Your task to perform on an android device: Go to settings Image 0: 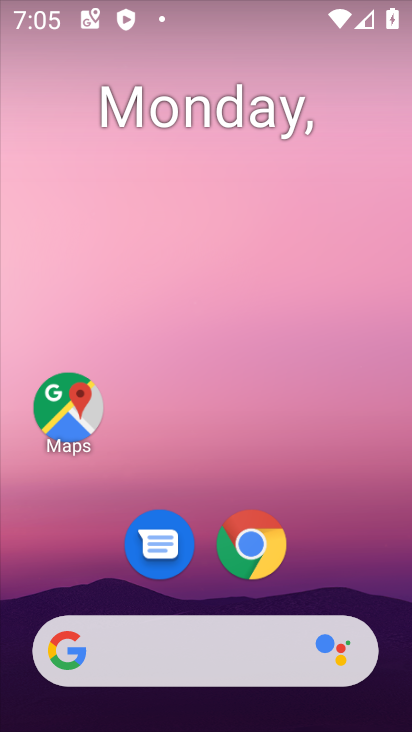
Step 0: drag from (337, 526) to (283, 57)
Your task to perform on an android device: Go to settings Image 1: 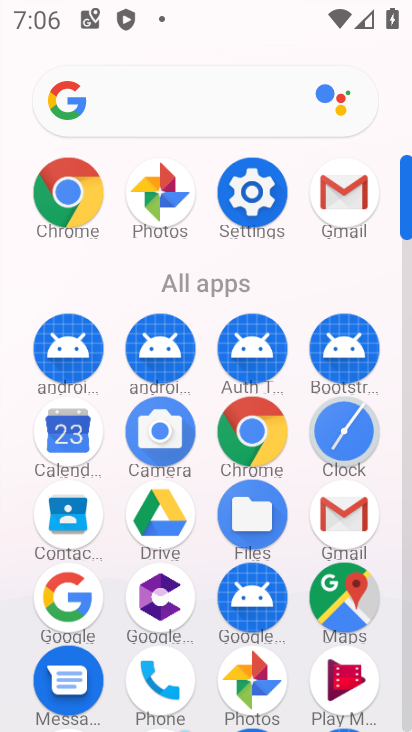
Step 1: click (253, 188)
Your task to perform on an android device: Go to settings Image 2: 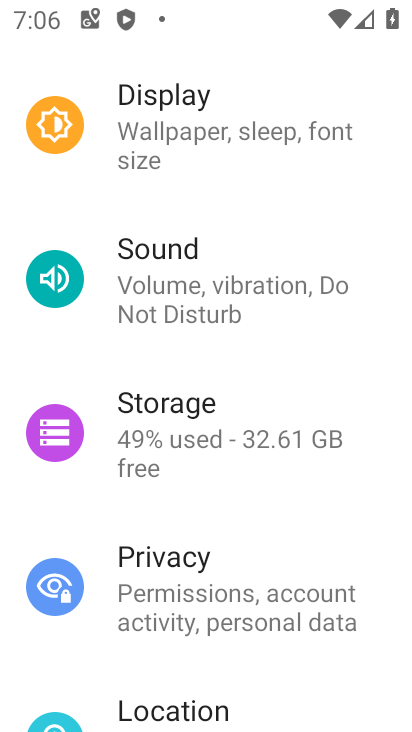
Step 2: task complete